Your task to perform on an android device: change the clock display to show seconds Image 0: 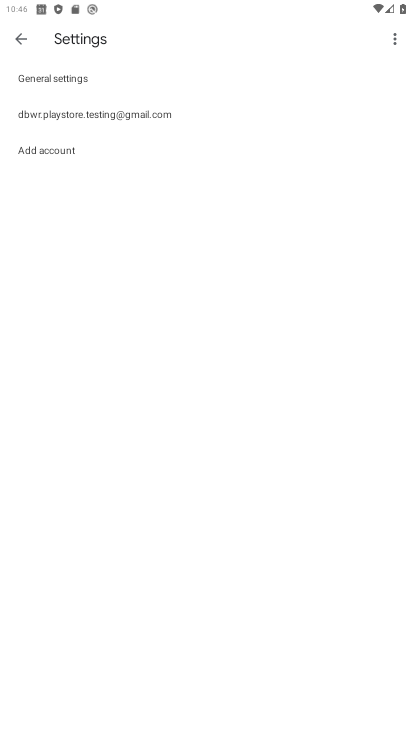
Step 0: press home button
Your task to perform on an android device: change the clock display to show seconds Image 1: 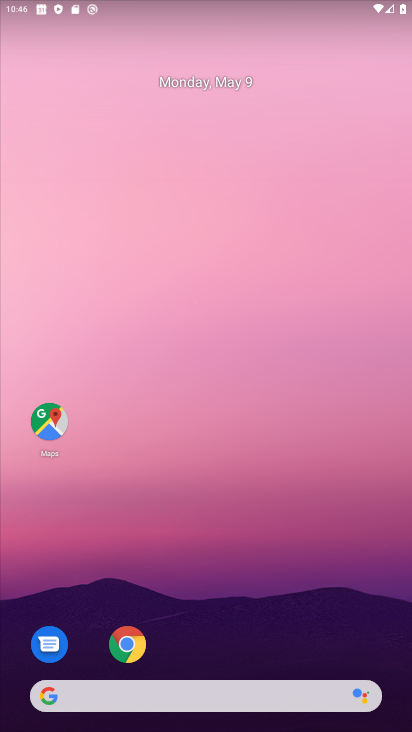
Step 1: drag from (259, 539) to (281, 13)
Your task to perform on an android device: change the clock display to show seconds Image 2: 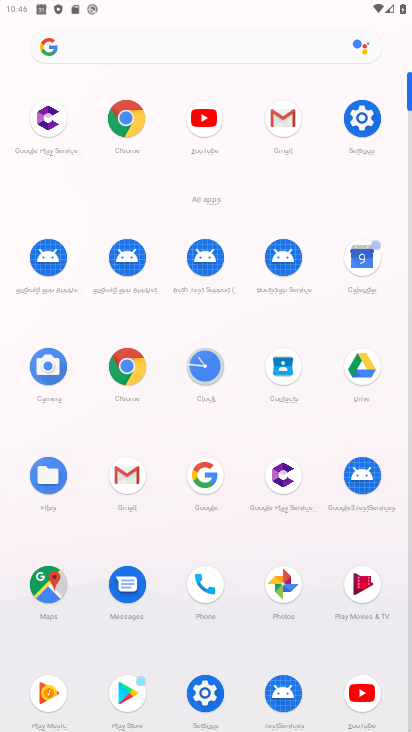
Step 2: click (210, 381)
Your task to perform on an android device: change the clock display to show seconds Image 3: 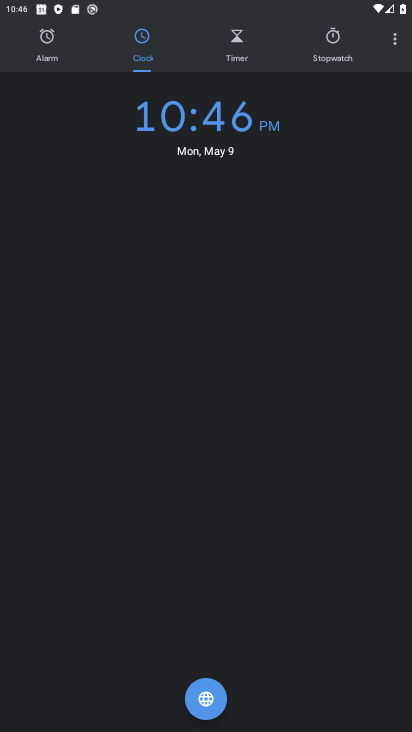
Step 3: click (402, 42)
Your task to perform on an android device: change the clock display to show seconds Image 4: 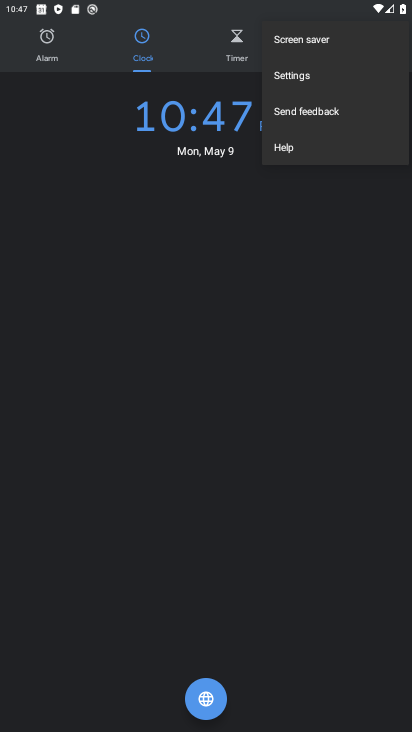
Step 4: click (299, 75)
Your task to perform on an android device: change the clock display to show seconds Image 5: 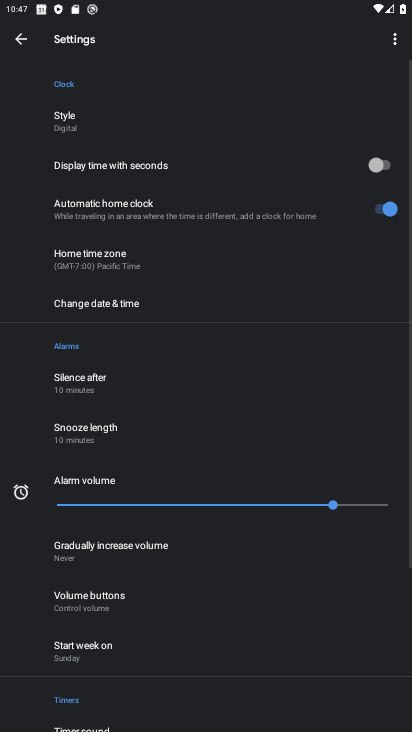
Step 5: click (81, 120)
Your task to perform on an android device: change the clock display to show seconds Image 6: 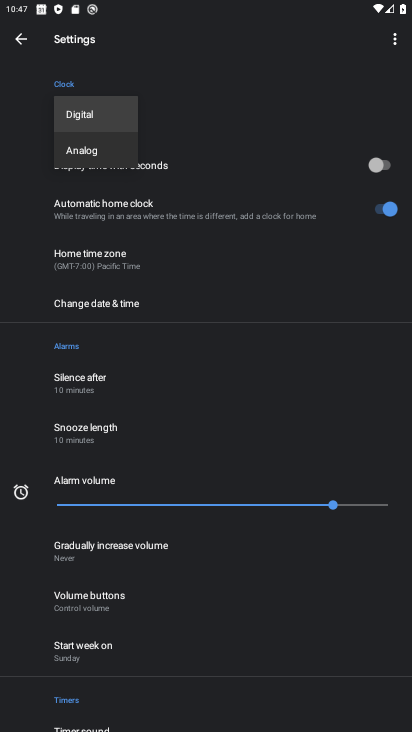
Step 6: click (100, 150)
Your task to perform on an android device: change the clock display to show seconds Image 7: 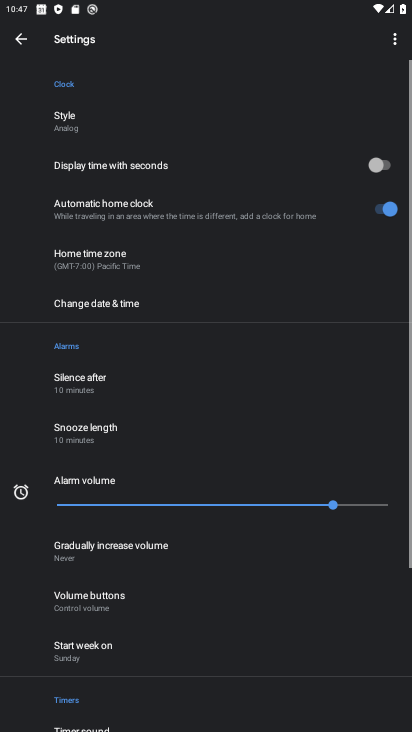
Step 7: click (392, 163)
Your task to perform on an android device: change the clock display to show seconds Image 8: 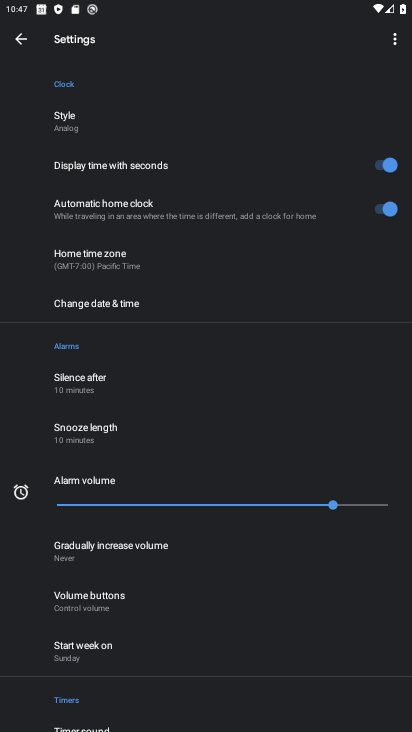
Step 8: task complete